Your task to perform on an android device: Open Google Chrome and click the shortcut for Amazon.com Image 0: 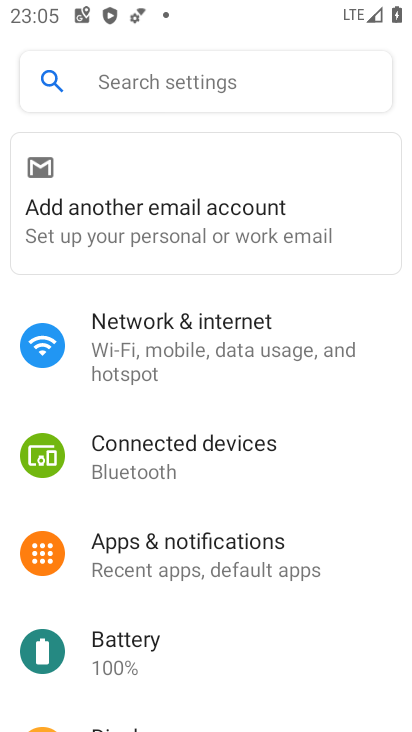
Step 0: press home button
Your task to perform on an android device: Open Google Chrome and click the shortcut for Amazon.com Image 1: 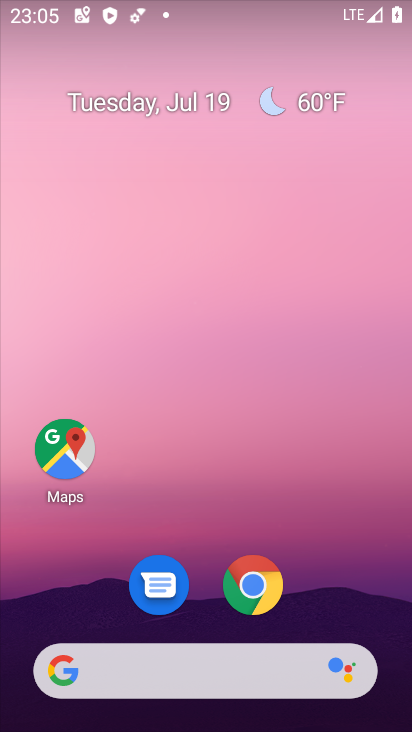
Step 1: click (260, 578)
Your task to perform on an android device: Open Google Chrome and click the shortcut for Amazon.com Image 2: 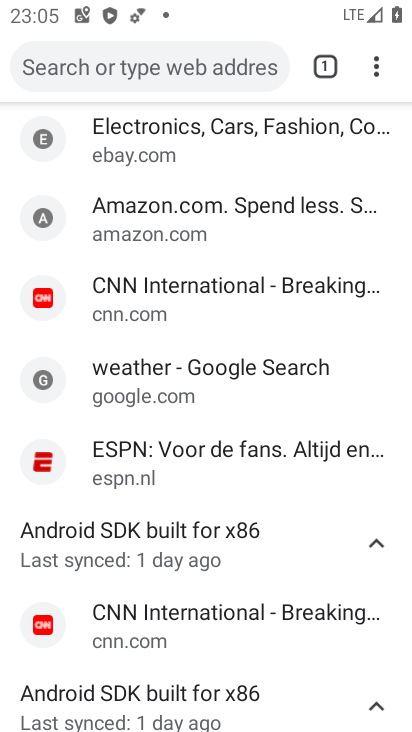
Step 2: press back button
Your task to perform on an android device: Open Google Chrome and click the shortcut for Amazon.com Image 3: 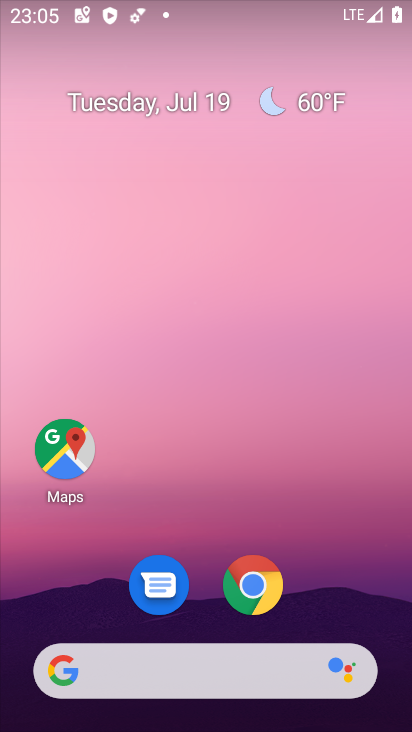
Step 3: click (261, 588)
Your task to perform on an android device: Open Google Chrome and click the shortcut for Amazon.com Image 4: 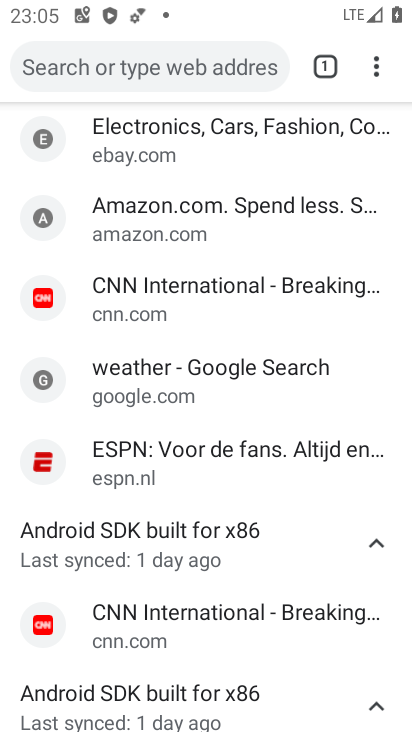
Step 4: click (377, 63)
Your task to perform on an android device: Open Google Chrome and click the shortcut for Amazon.com Image 5: 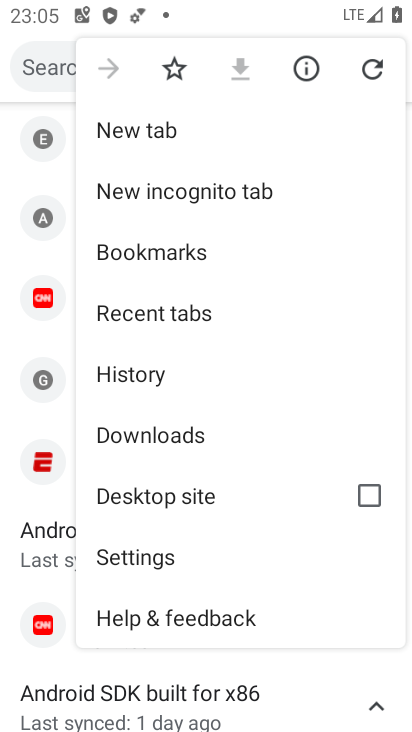
Step 5: click (290, 119)
Your task to perform on an android device: Open Google Chrome and click the shortcut for Amazon.com Image 6: 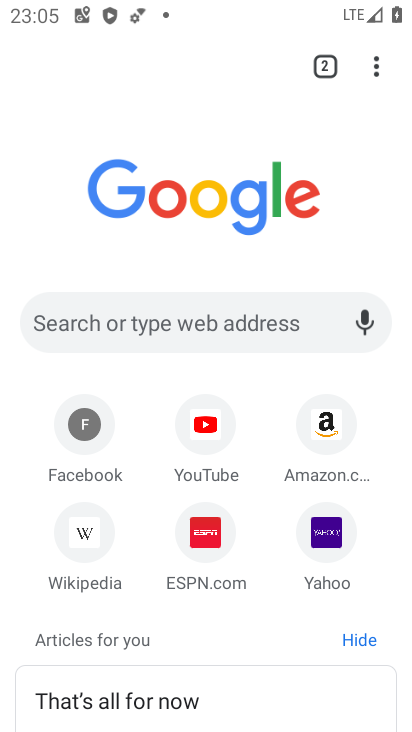
Step 6: click (330, 415)
Your task to perform on an android device: Open Google Chrome and click the shortcut for Amazon.com Image 7: 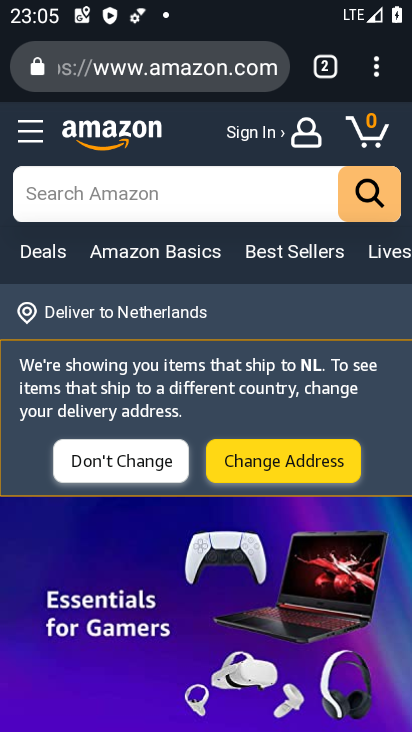
Step 7: task complete